Your task to perform on an android device: turn off data saver in the chrome app Image 0: 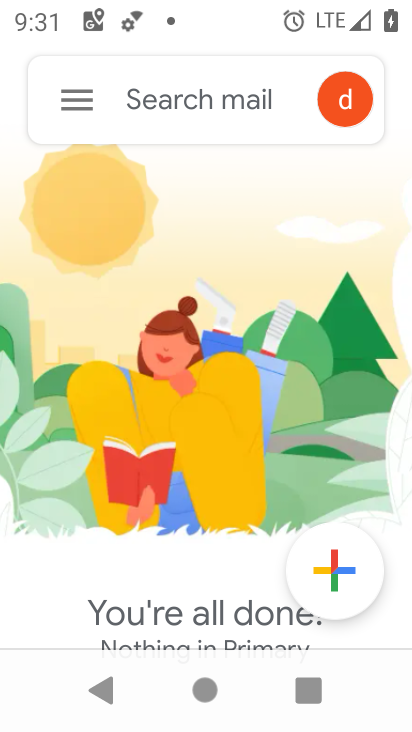
Step 0: press home button
Your task to perform on an android device: turn off data saver in the chrome app Image 1: 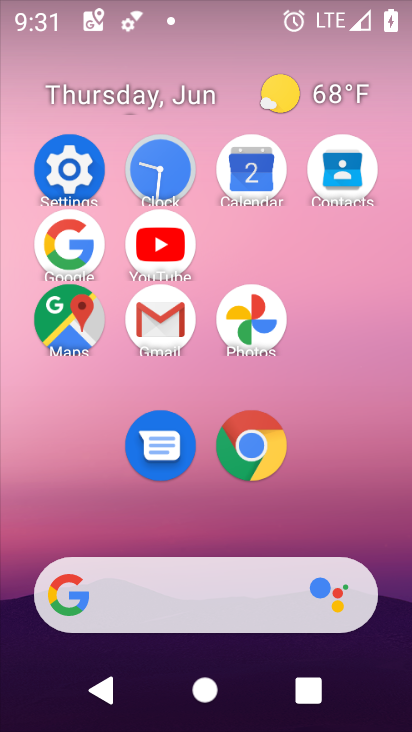
Step 1: click (185, 307)
Your task to perform on an android device: turn off data saver in the chrome app Image 2: 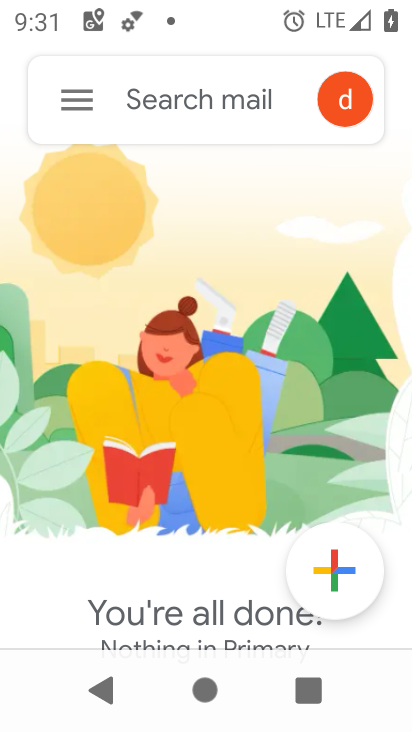
Step 2: click (91, 109)
Your task to perform on an android device: turn off data saver in the chrome app Image 3: 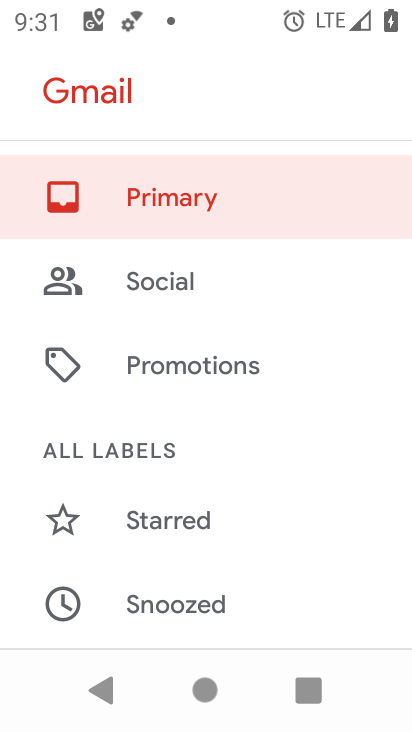
Step 3: drag from (228, 367) to (263, 146)
Your task to perform on an android device: turn off data saver in the chrome app Image 4: 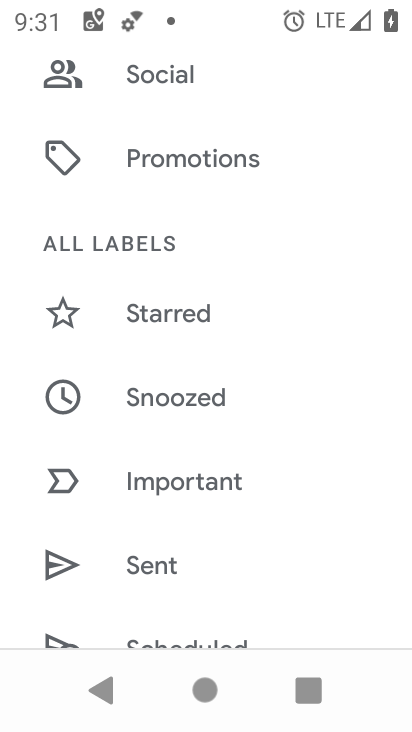
Step 4: drag from (243, 543) to (280, 165)
Your task to perform on an android device: turn off data saver in the chrome app Image 5: 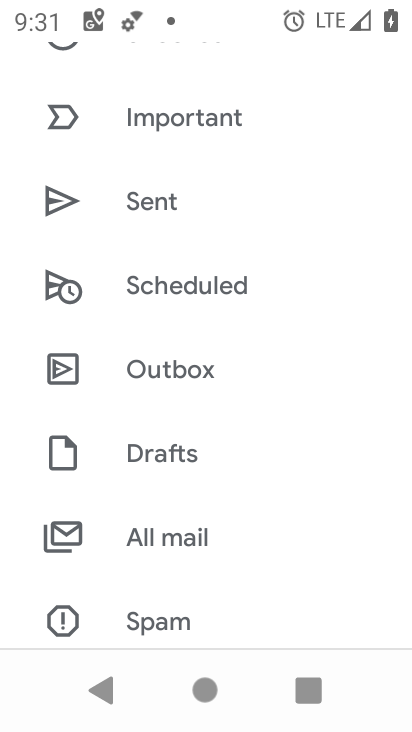
Step 5: drag from (245, 542) to (282, 148)
Your task to perform on an android device: turn off data saver in the chrome app Image 6: 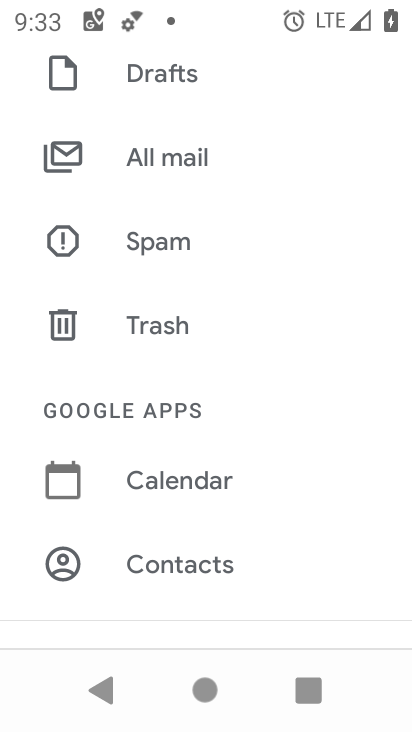
Step 6: drag from (227, 563) to (274, 229)
Your task to perform on an android device: turn off data saver in the chrome app Image 7: 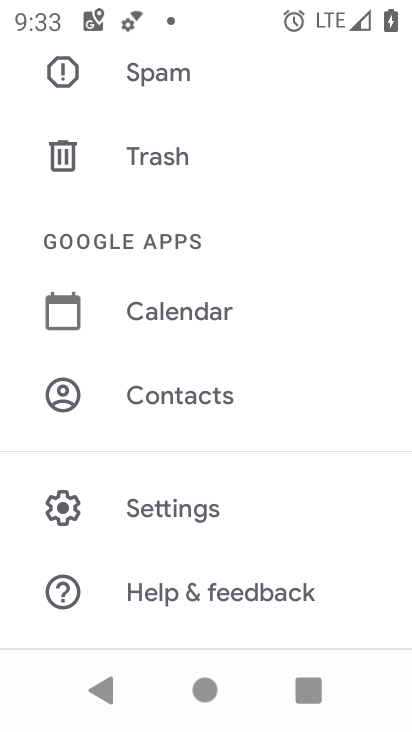
Step 7: press home button
Your task to perform on an android device: turn off data saver in the chrome app Image 8: 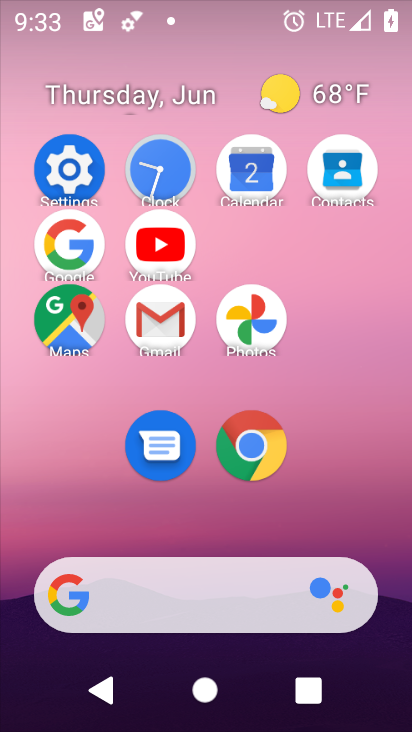
Step 8: click (269, 445)
Your task to perform on an android device: turn off data saver in the chrome app Image 9: 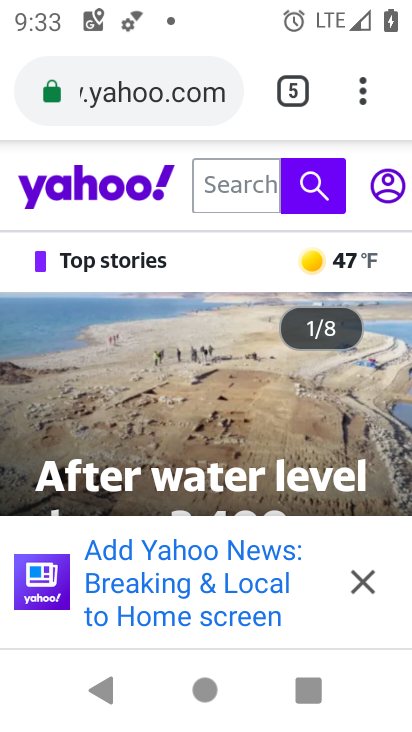
Step 9: click (363, 94)
Your task to perform on an android device: turn off data saver in the chrome app Image 10: 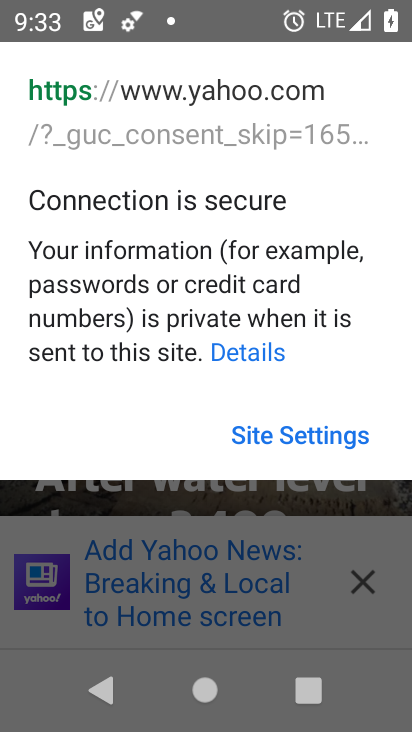
Step 10: click (387, 531)
Your task to perform on an android device: turn off data saver in the chrome app Image 11: 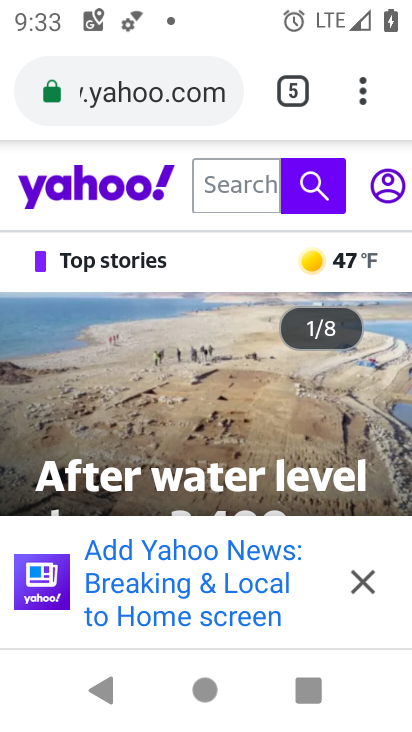
Step 11: click (368, 84)
Your task to perform on an android device: turn off data saver in the chrome app Image 12: 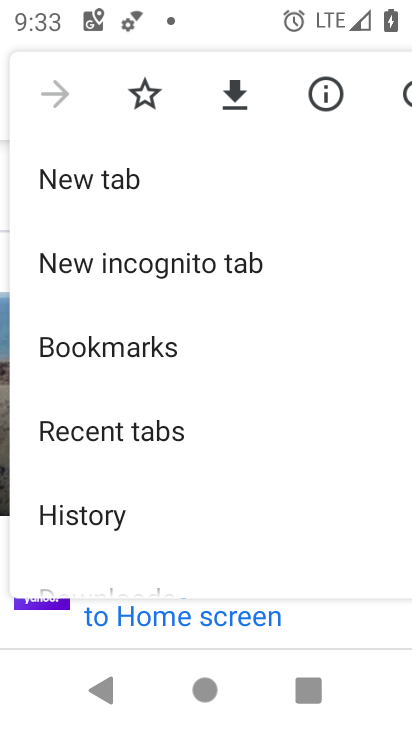
Step 12: drag from (209, 504) to (208, 36)
Your task to perform on an android device: turn off data saver in the chrome app Image 13: 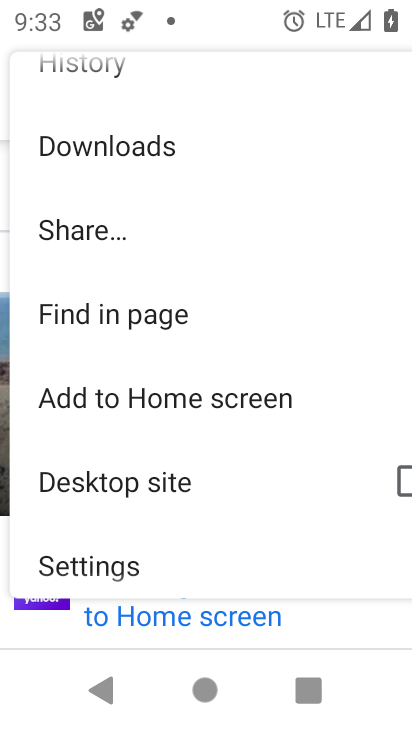
Step 13: drag from (192, 487) to (246, 195)
Your task to perform on an android device: turn off data saver in the chrome app Image 14: 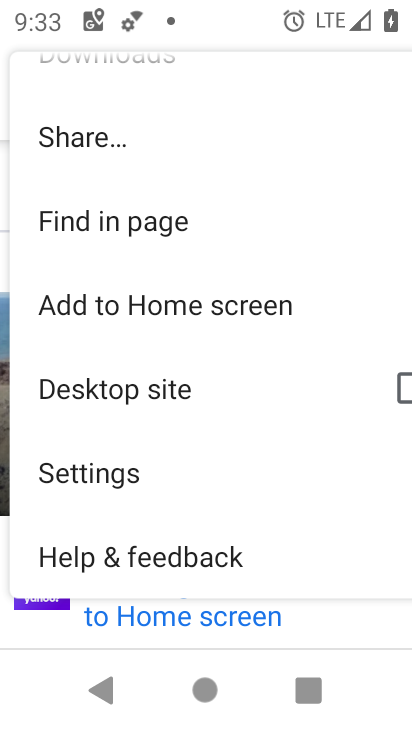
Step 14: click (186, 484)
Your task to perform on an android device: turn off data saver in the chrome app Image 15: 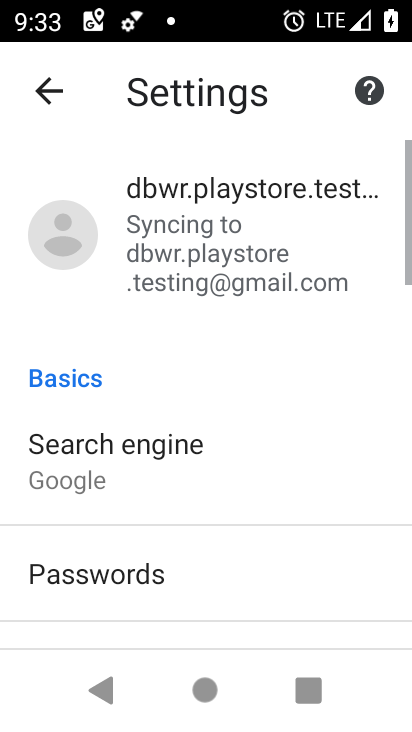
Step 15: drag from (207, 556) to (235, 194)
Your task to perform on an android device: turn off data saver in the chrome app Image 16: 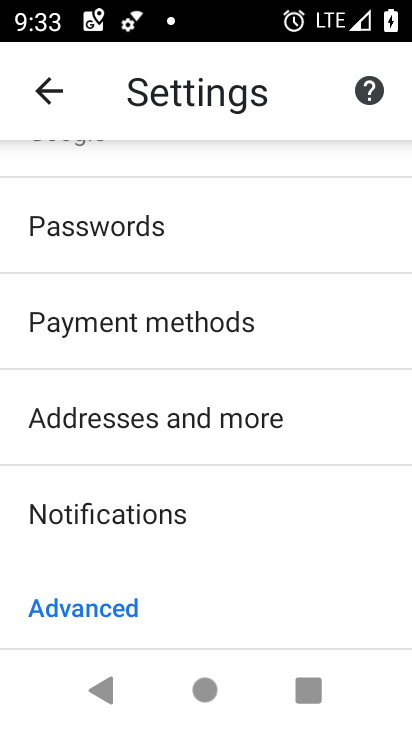
Step 16: drag from (255, 565) to (256, 166)
Your task to perform on an android device: turn off data saver in the chrome app Image 17: 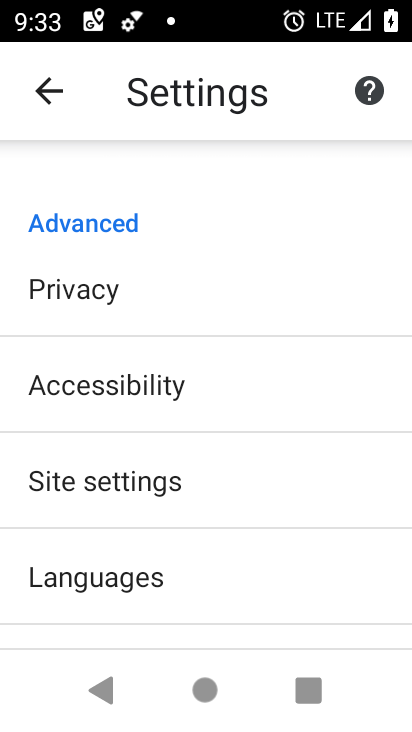
Step 17: drag from (234, 582) to (275, 194)
Your task to perform on an android device: turn off data saver in the chrome app Image 18: 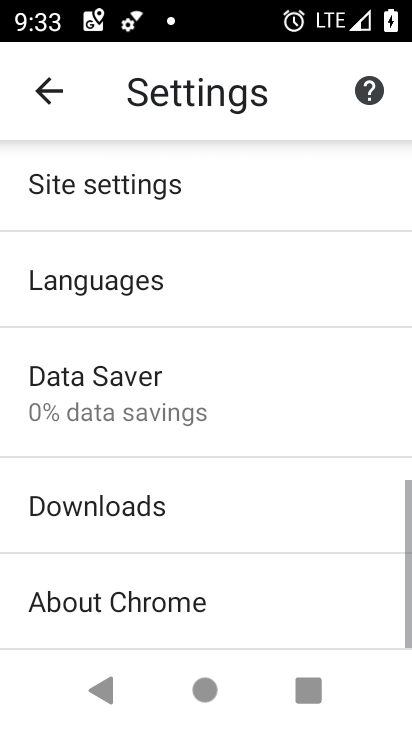
Step 18: click (222, 377)
Your task to perform on an android device: turn off data saver in the chrome app Image 19: 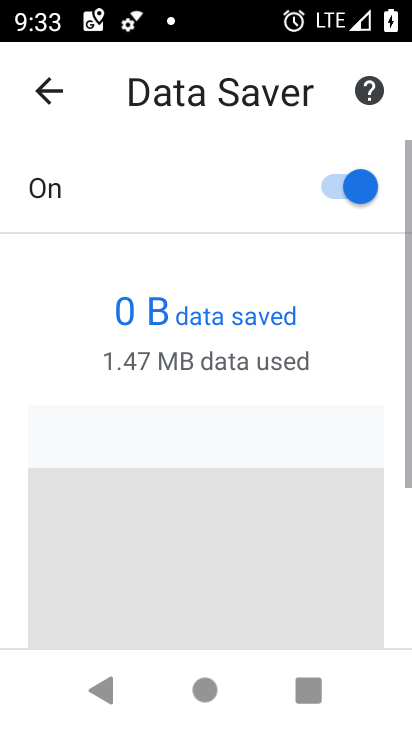
Step 19: click (346, 203)
Your task to perform on an android device: turn off data saver in the chrome app Image 20: 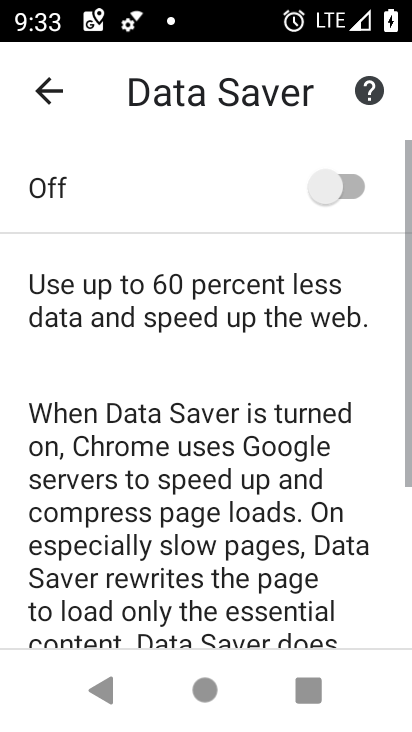
Step 20: task complete